Your task to perform on an android device: Go to calendar. Show me events next week Image 0: 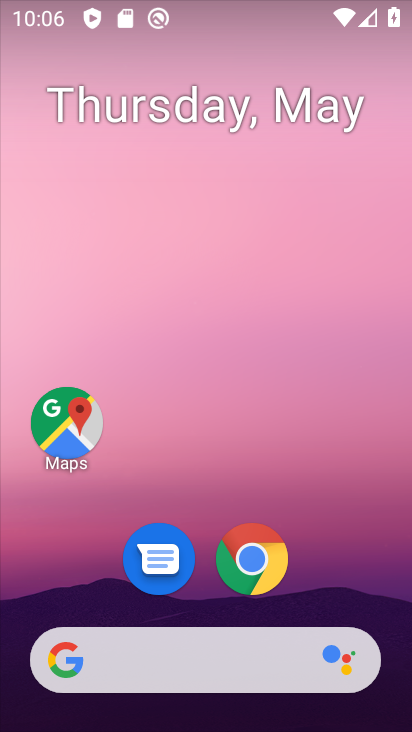
Step 0: drag from (348, 574) to (298, 83)
Your task to perform on an android device: Go to calendar. Show me events next week Image 1: 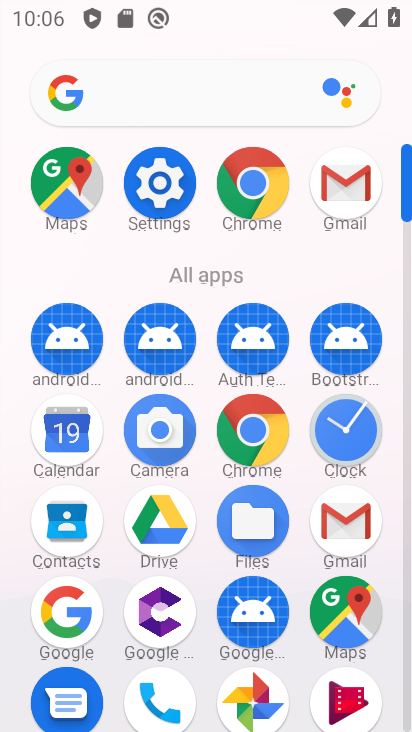
Step 1: click (71, 431)
Your task to perform on an android device: Go to calendar. Show me events next week Image 2: 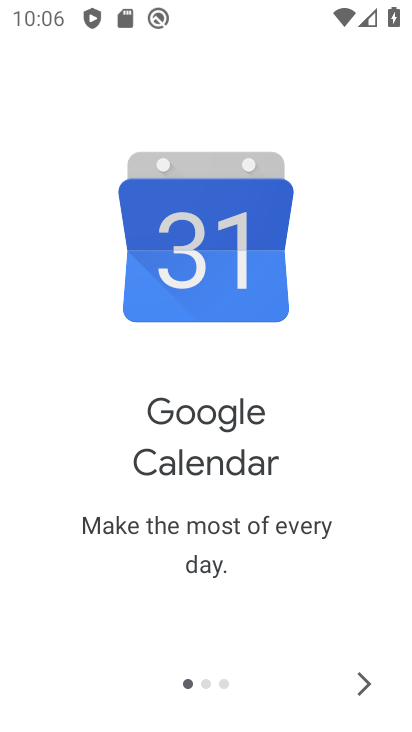
Step 2: click (352, 679)
Your task to perform on an android device: Go to calendar. Show me events next week Image 3: 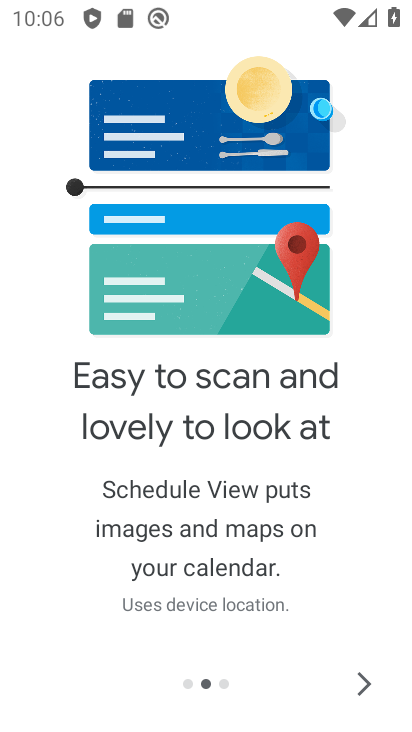
Step 3: click (352, 678)
Your task to perform on an android device: Go to calendar. Show me events next week Image 4: 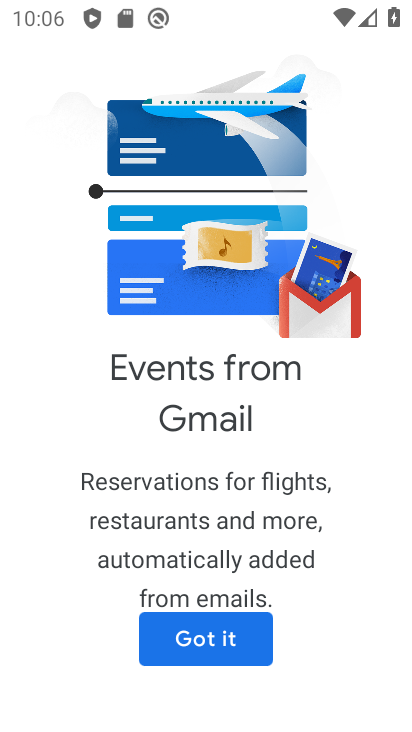
Step 4: click (183, 641)
Your task to perform on an android device: Go to calendar. Show me events next week Image 5: 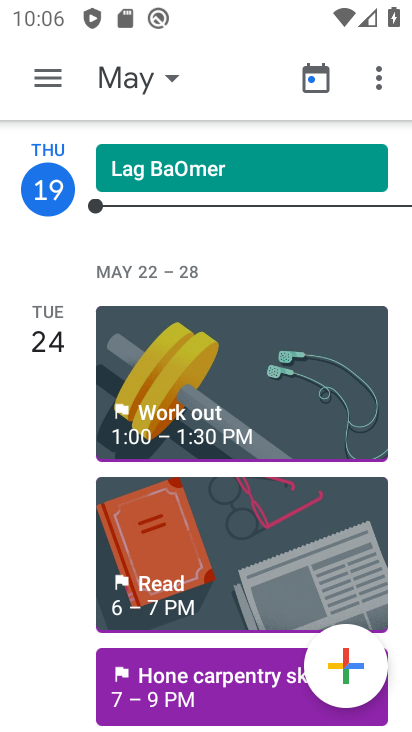
Step 5: click (134, 77)
Your task to perform on an android device: Go to calendar. Show me events next week Image 6: 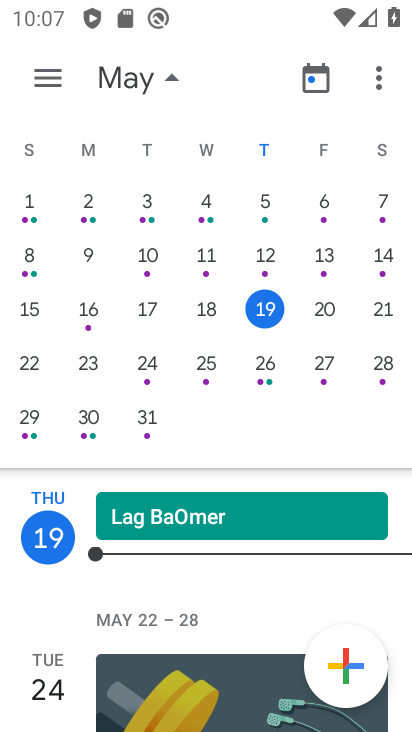
Step 6: click (273, 368)
Your task to perform on an android device: Go to calendar. Show me events next week Image 7: 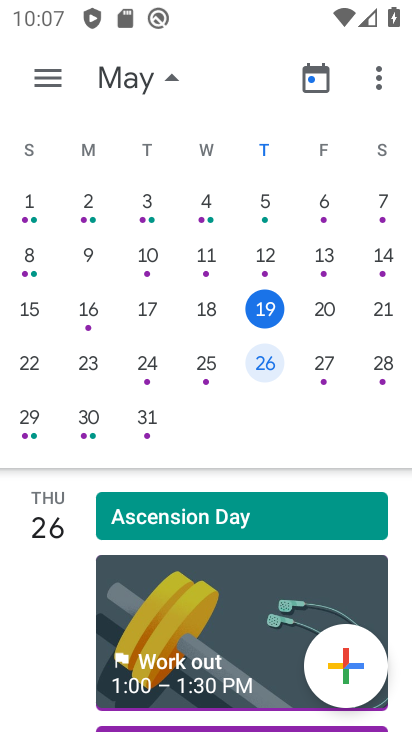
Step 7: task complete